Your task to perform on an android device: set an alarm Image 0: 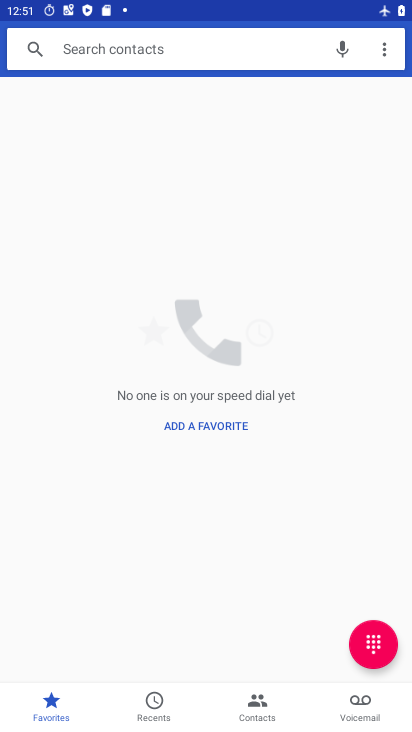
Step 0: press home button
Your task to perform on an android device: set an alarm Image 1: 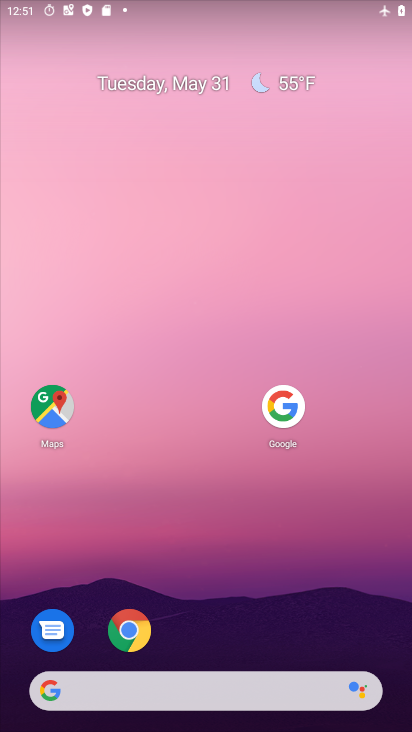
Step 1: drag from (254, 676) to (127, 0)
Your task to perform on an android device: set an alarm Image 2: 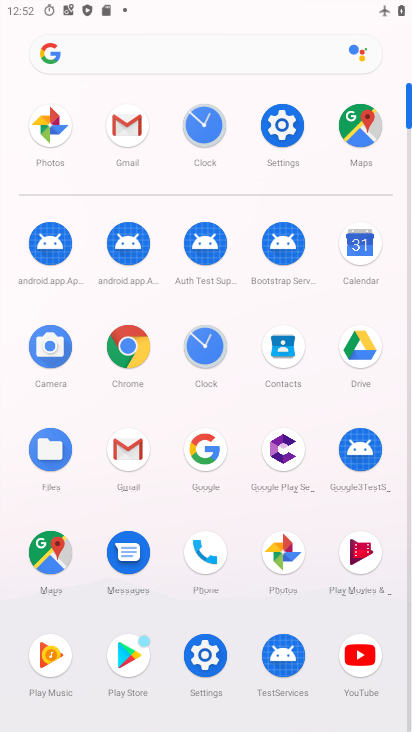
Step 2: click (211, 127)
Your task to perform on an android device: set an alarm Image 3: 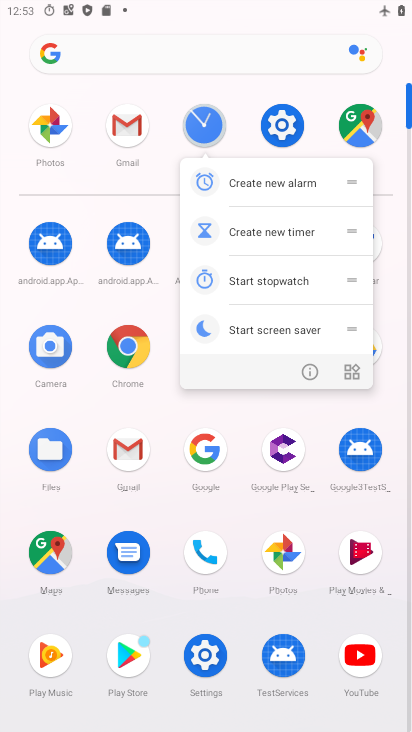
Step 3: click (215, 125)
Your task to perform on an android device: set an alarm Image 4: 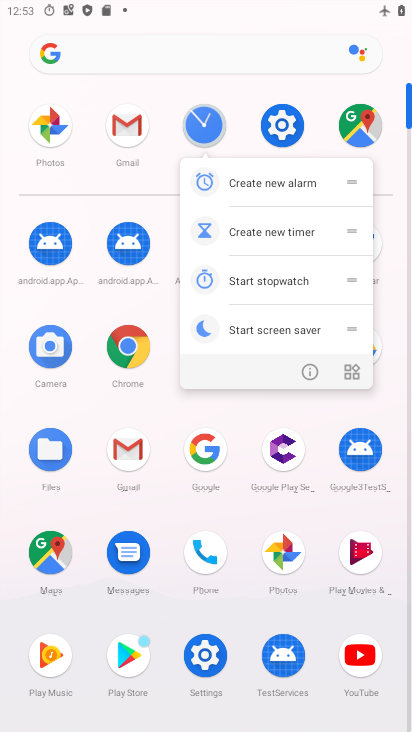
Step 4: click (209, 127)
Your task to perform on an android device: set an alarm Image 5: 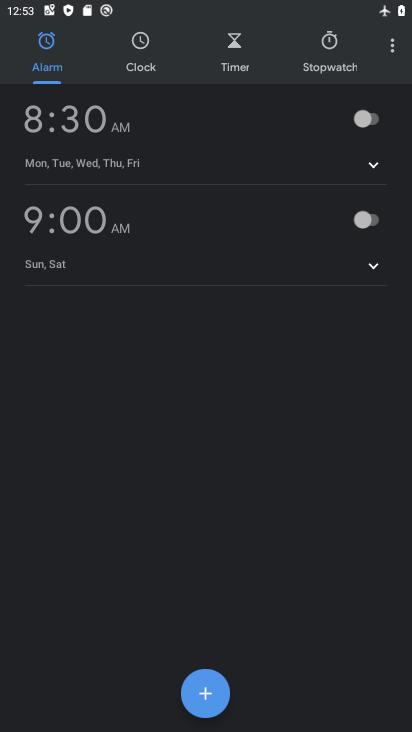
Step 5: click (380, 115)
Your task to perform on an android device: set an alarm Image 6: 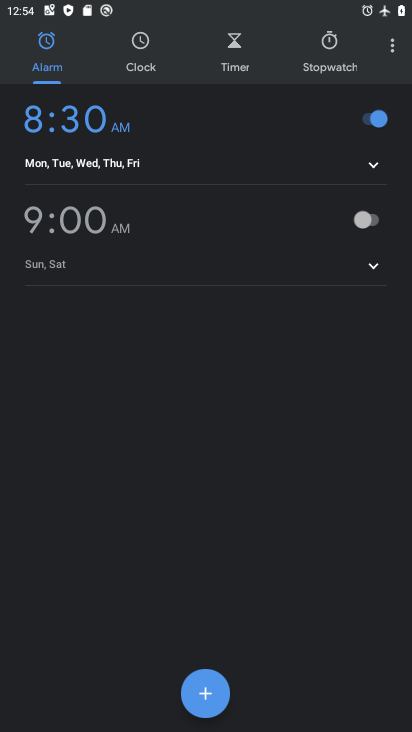
Step 6: task complete